Your task to perform on an android device: Go to sound settings Image 0: 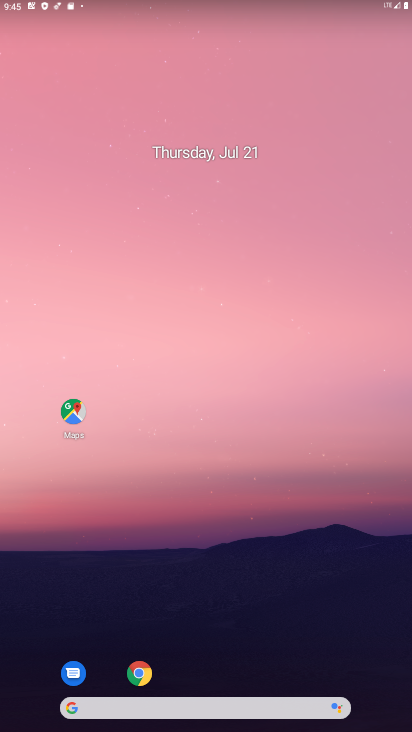
Step 0: drag from (267, 650) to (270, 31)
Your task to perform on an android device: Go to sound settings Image 1: 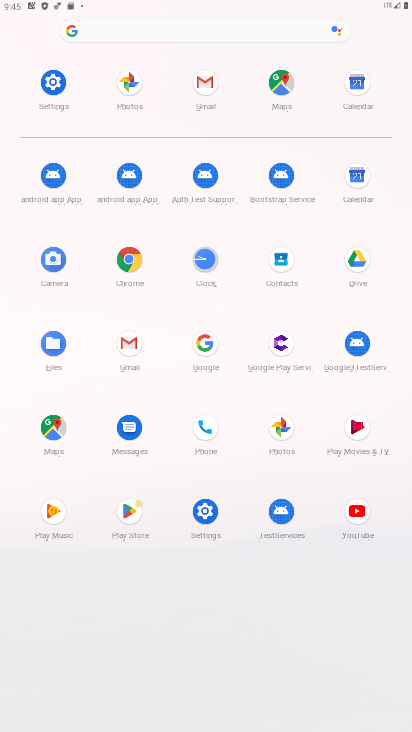
Step 1: click (64, 97)
Your task to perform on an android device: Go to sound settings Image 2: 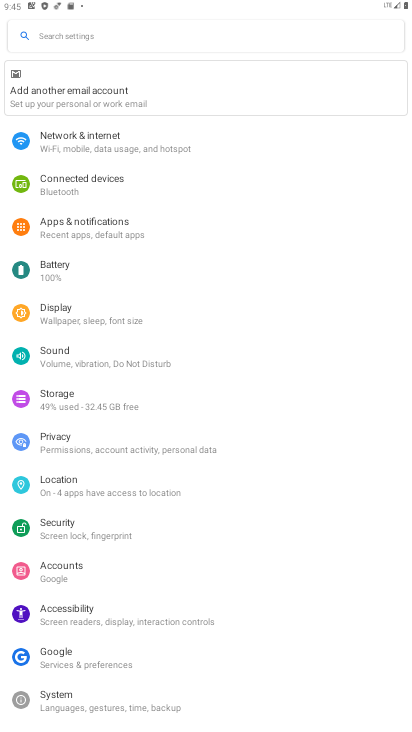
Step 2: click (70, 375)
Your task to perform on an android device: Go to sound settings Image 3: 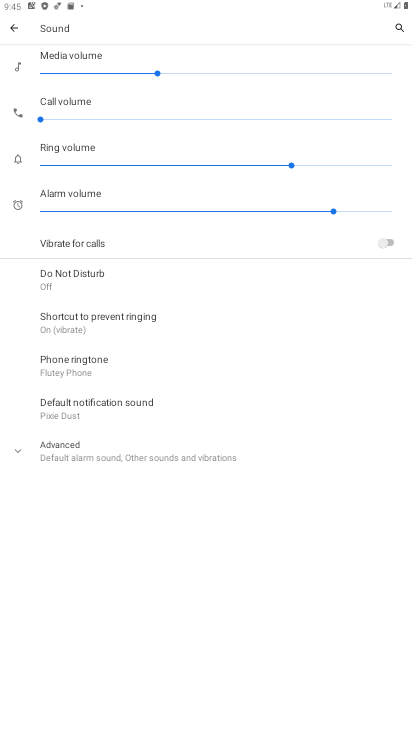
Step 3: task complete